Your task to perform on an android device: Open Youtube and go to the subscriptions tab Image 0: 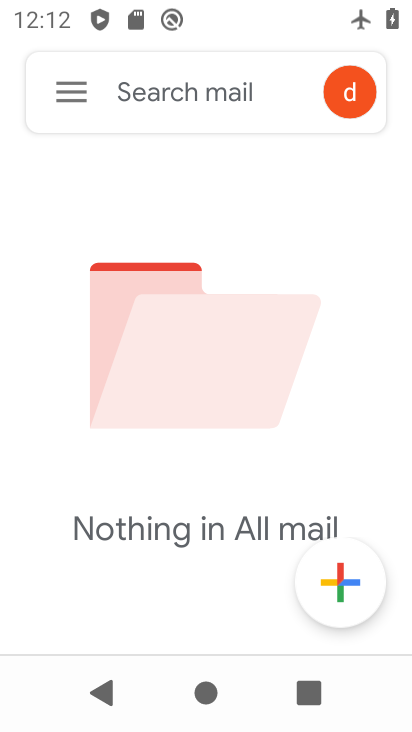
Step 0: press home button
Your task to perform on an android device: Open Youtube and go to the subscriptions tab Image 1: 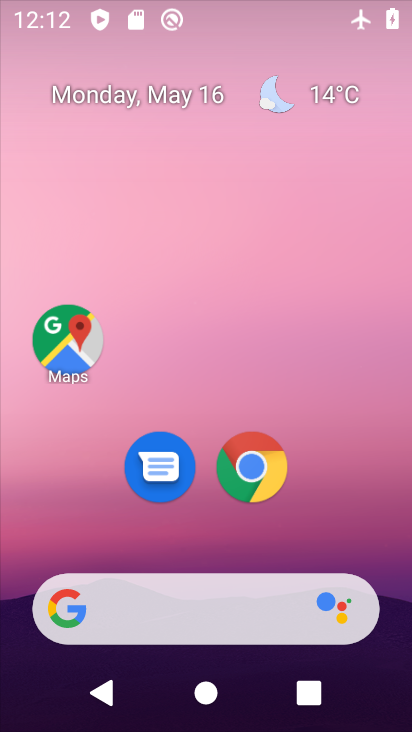
Step 1: drag from (213, 606) to (266, 213)
Your task to perform on an android device: Open Youtube and go to the subscriptions tab Image 2: 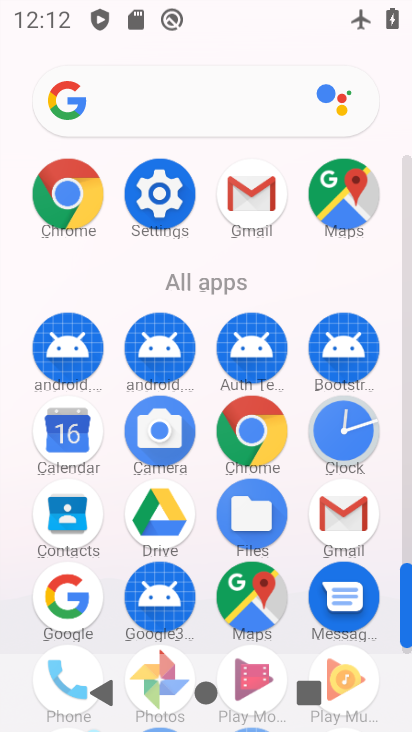
Step 2: drag from (313, 538) to (327, 148)
Your task to perform on an android device: Open Youtube and go to the subscriptions tab Image 3: 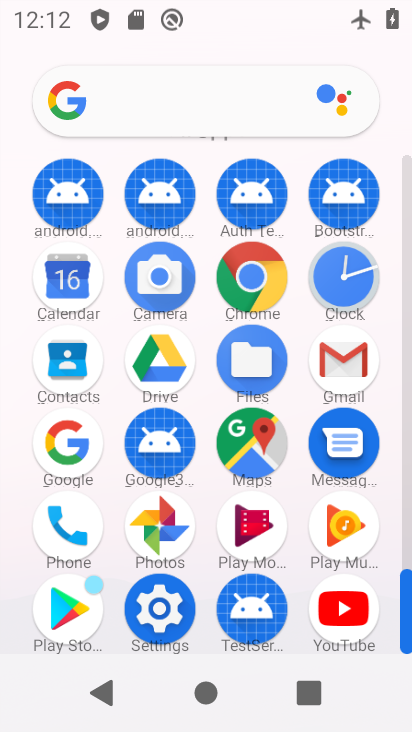
Step 3: click (348, 608)
Your task to perform on an android device: Open Youtube and go to the subscriptions tab Image 4: 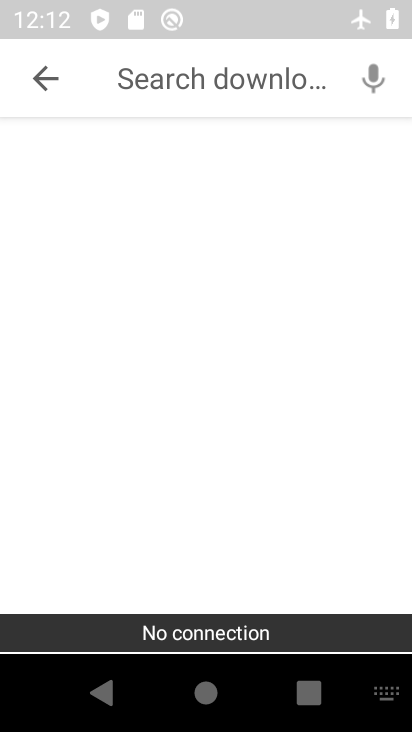
Step 4: task complete